Your task to perform on an android device: turn on showing notifications on the lock screen Image 0: 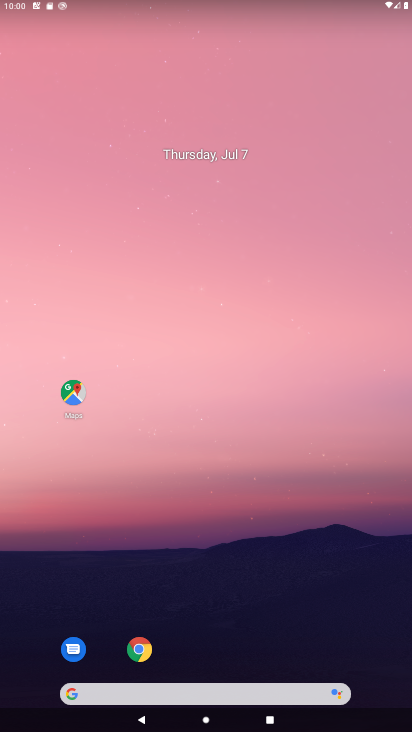
Step 0: drag from (221, 642) to (122, 81)
Your task to perform on an android device: turn on showing notifications on the lock screen Image 1: 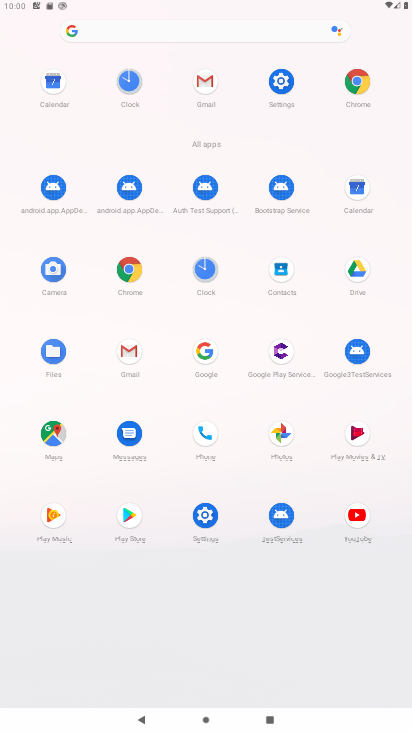
Step 1: click (274, 90)
Your task to perform on an android device: turn on showing notifications on the lock screen Image 2: 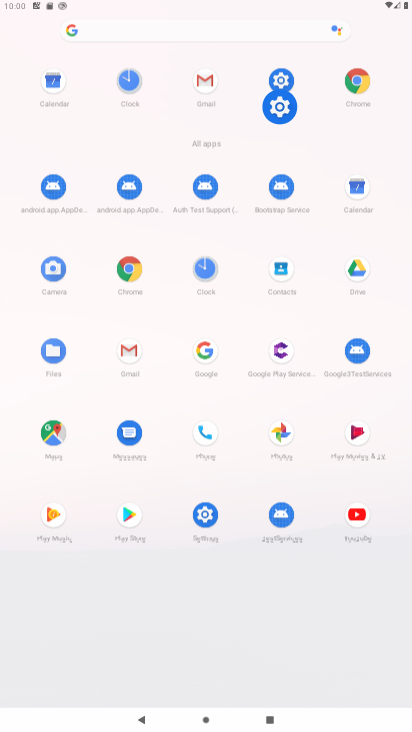
Step 2: click (274, 90)
Your task to perform on an android device: turn on showing notifications on the lock screen Image 3: 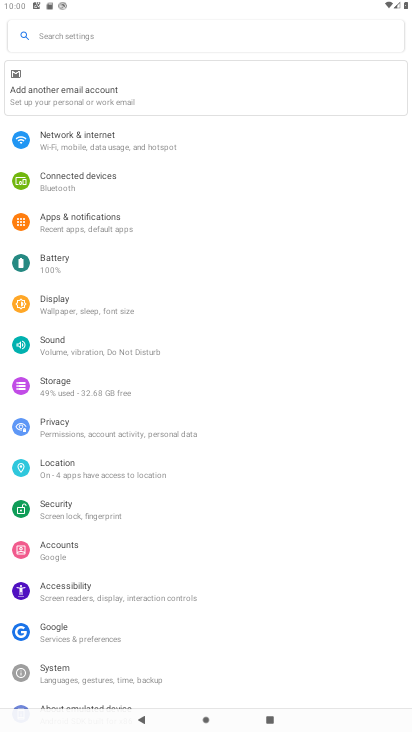
Step 3: click (168, 211)
Your task to perform on an android device: turn on showing notifications on the lock screen Image 4: 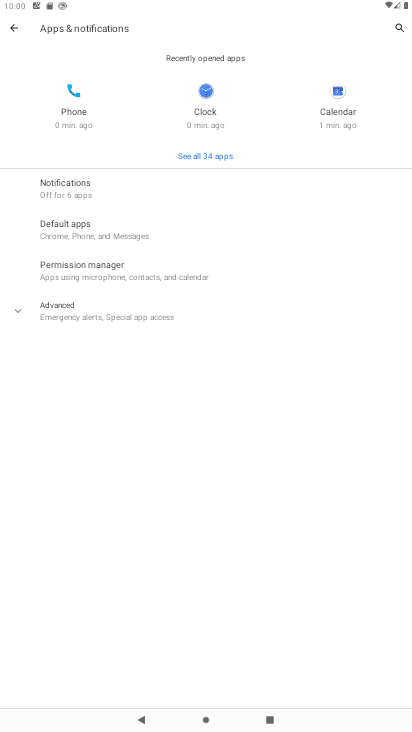
Step 4: click (179, 195)
Your task to perform on an android device: turn on showing notifications on the lock screen Image 5: 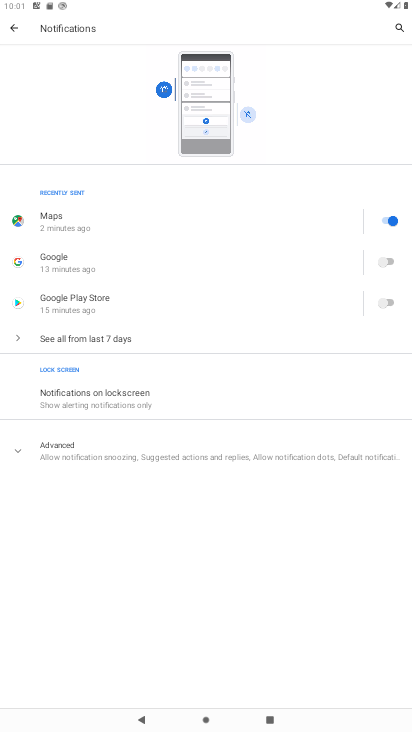
Step 5: click (106, 412)
Your task to perform on an android device: turn on showing notifications on the lock screen Image 6: 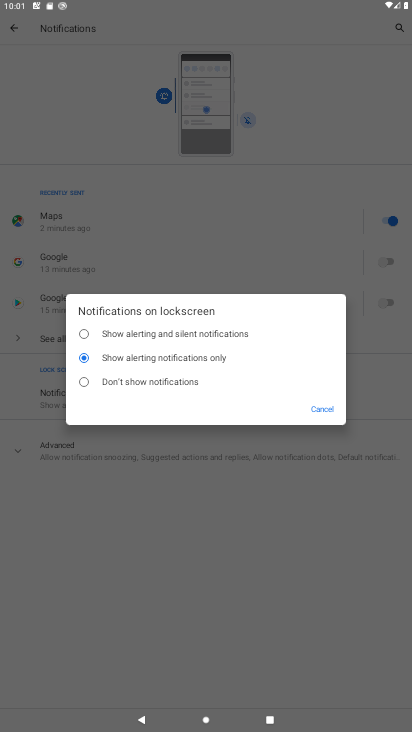
Step 6: click (165, 333)
Your task to perform on an android device: turn on showing notifications on the lock screen Image 7: 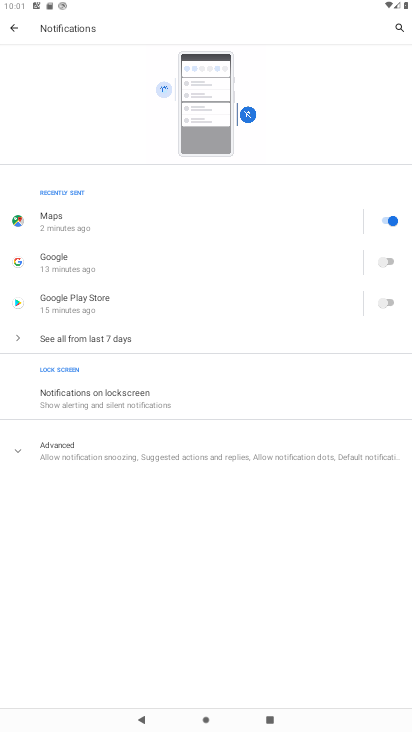
Step 7: task complete